Your task to perform on an android device: Open Yahoo.com Image 0: 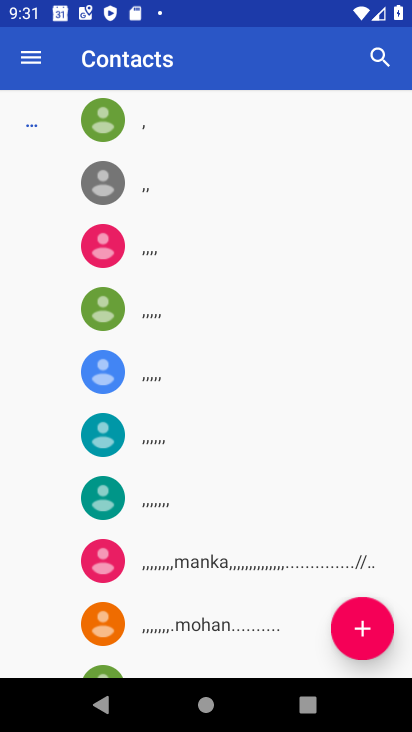
Step 0: press home button
Your task to perform on an android device: Open Yahoo.com Image 1: 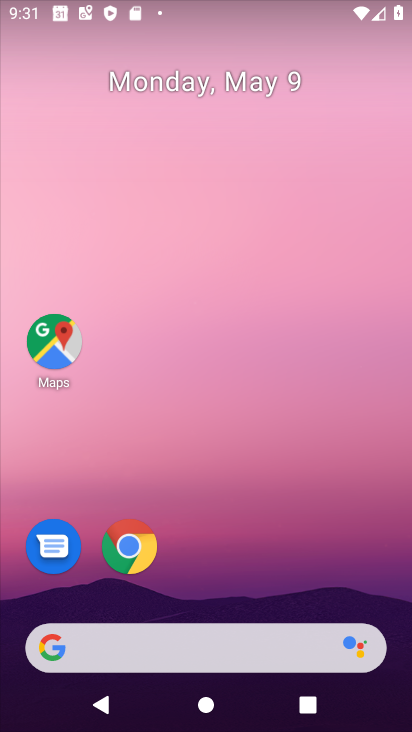
Step 1: click (126, 535)
Your task to perform on an android device: Open Yahoo.com Image 2: 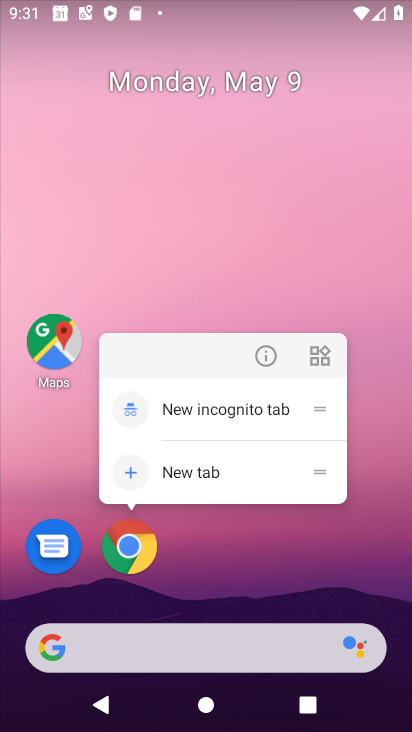
Step 2: click (126, 535)
Your task to perform on an android device: Open Yahoo.com Image 3: 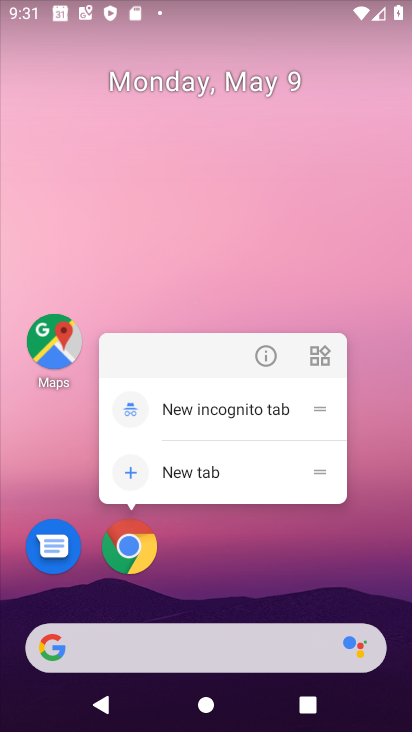
Step 3: click (229, 648)
Your task to perform on an android device: Open Yahoo.com Image 4: 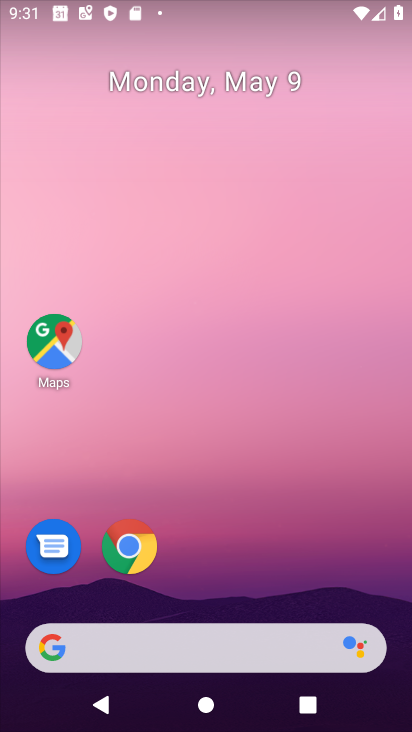
Step 4: click (229, 648)
Your task to perform on an android device: Open Yahoo.com Image 5: 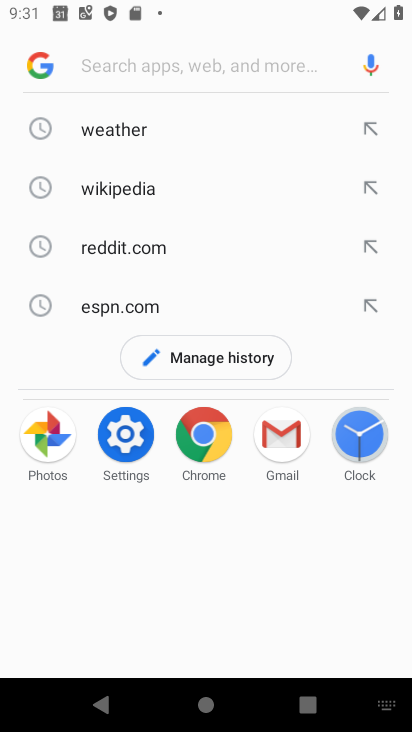
Step 5: type "yahoo.com"
Your task to perform on an android device: Open Yahoo.com Image 6: 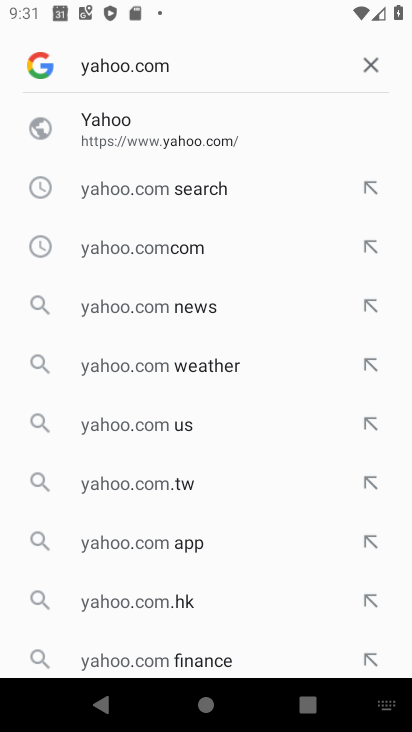
Step 6: click (196, 136)
Your task to perform on an android device: Open Yahoo.com Image 7: 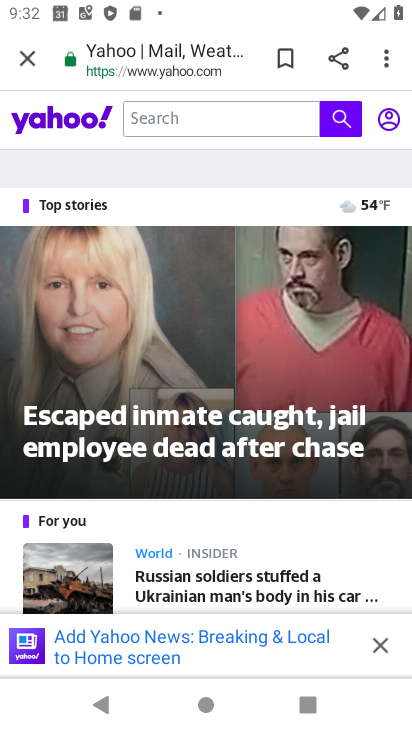
Step 7: task complete